Your task to perform on an android device: Go to network settings Image 0: 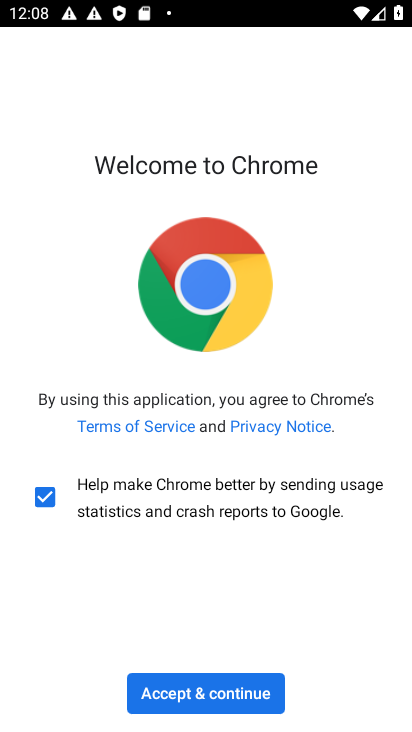
Step 0: click (154, 685)
Your task to perform on an android device: Go to network settings Image 1: 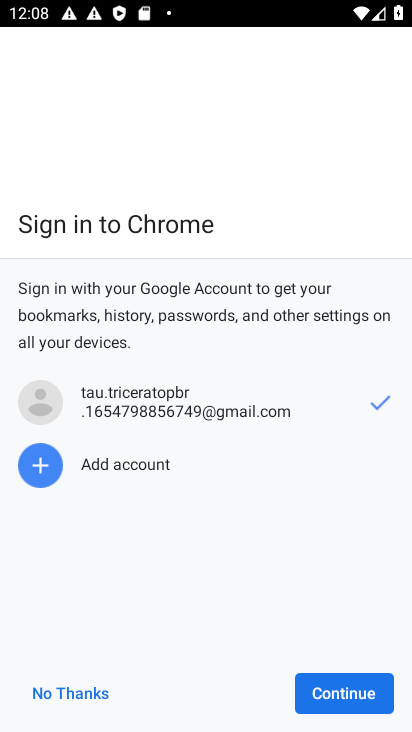
Step 1: click (358, 684)
Your task to perform on an android device: Go to network settings Image 2: 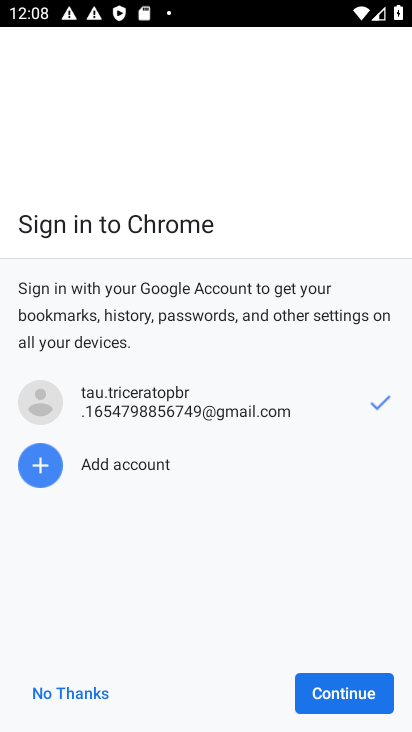
Step 2: click (358, 684)
Your task to perform on an android device: Go to network settings Image 3: 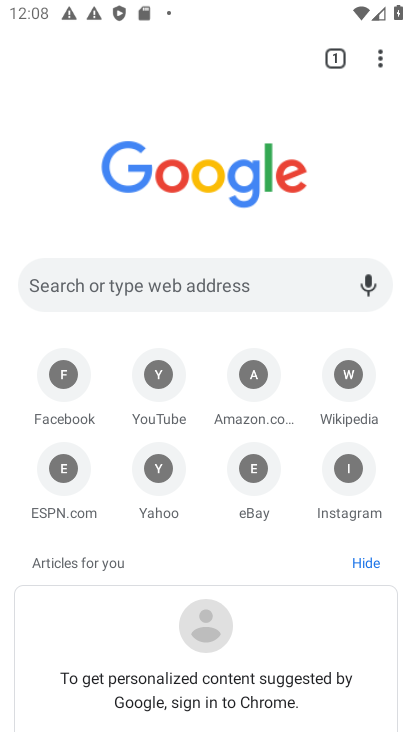
Step 3: task complete